Your task to perform on an android device: How much does a 3 bedroom apartment rent for in Los Angeles? Image 0: 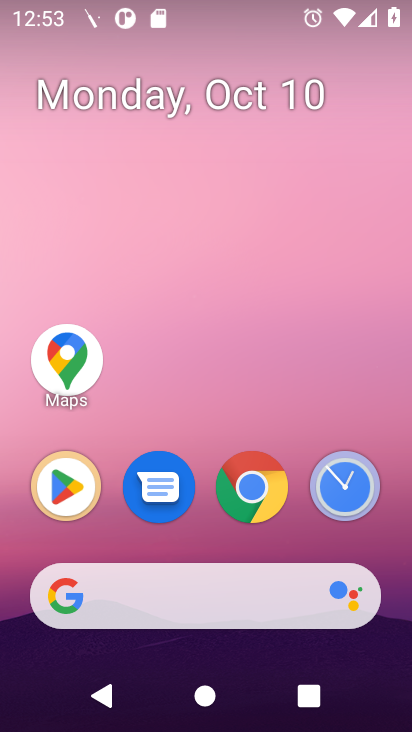
Step 0: click (264, 505)
Your task to perform on an android device: How much does a 3 bedroom apartment rent for in Los Angeles? Image 1: 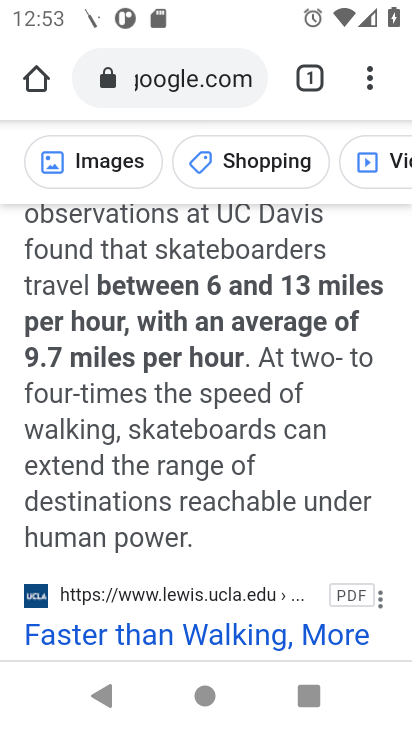
Step 1: click (178, 79)
Your task to perform on an android device: How much does a 3 bedroom apartment rent for in Los Angeles? Image 2: 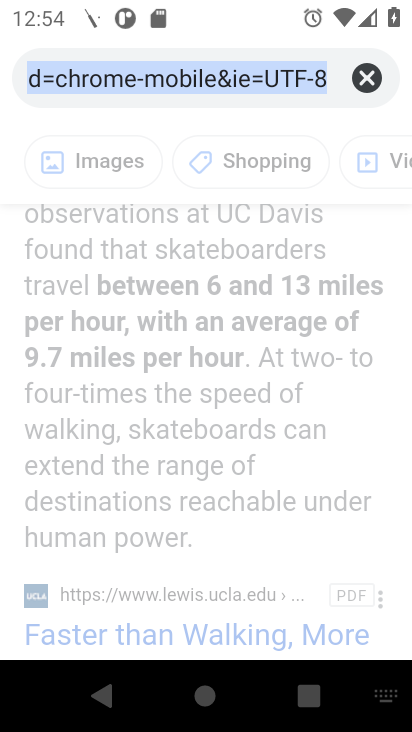
Step 2: type "3 bedroom apartment rent in Los Angeles"
Your task to perform on an android device: How much does a 3 bedroom apartment rent for in Los Angeles? Image 3: 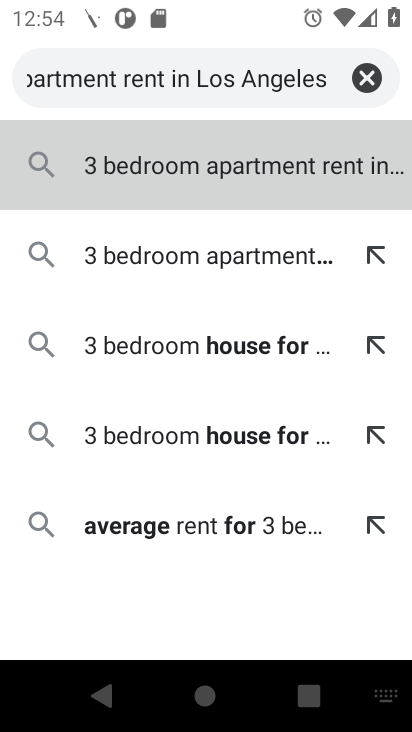
Step 3: press enter
Your task to perform on an android device: How much does a 3 bedroom apartment rent for in Los Angeles? Image 4: 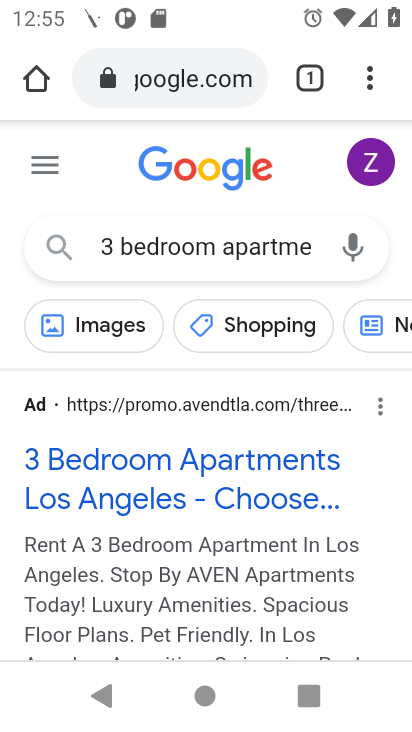
Step 4: drag from (214, 595) to (204, 231)
Your task to perform on an android device: How much does a 3 bedroom apartment rent for in Los Angeles? Image 5: 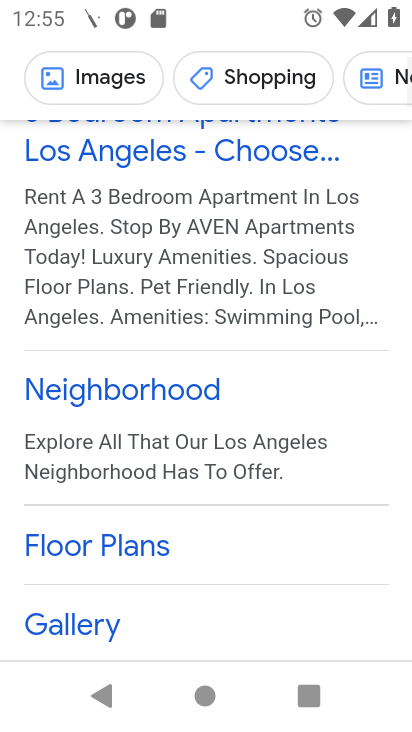
Step 5: drag from (233, 596) to (216, 261)
Your task to perform on an android device: How much does a 3 bedroom apartment rent for in Los Angeles? Image 6: 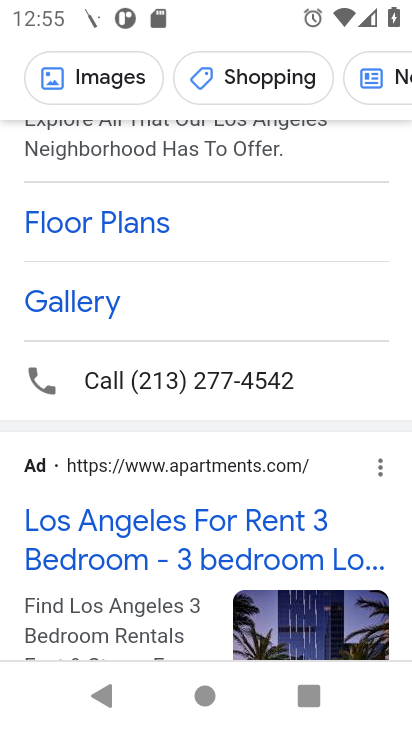
Step 6: click (148, 548)
Your task to perform on an android device: How much does a 3 bedroom apartment rent for in Los Angeles? Image 7: 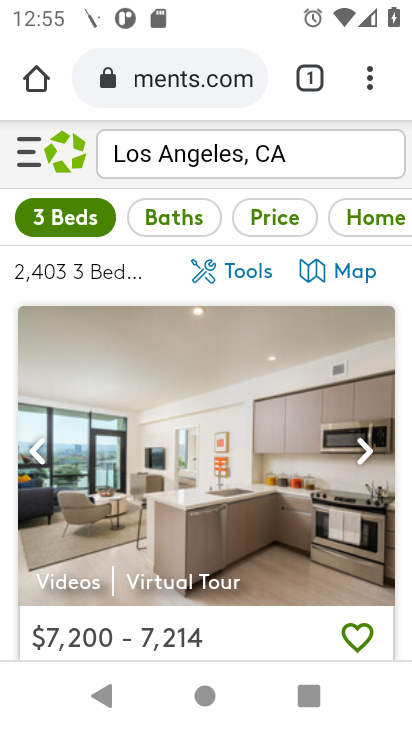
Step 7: task complete